Your task to perform on an android device: Go to Maps Image 0: 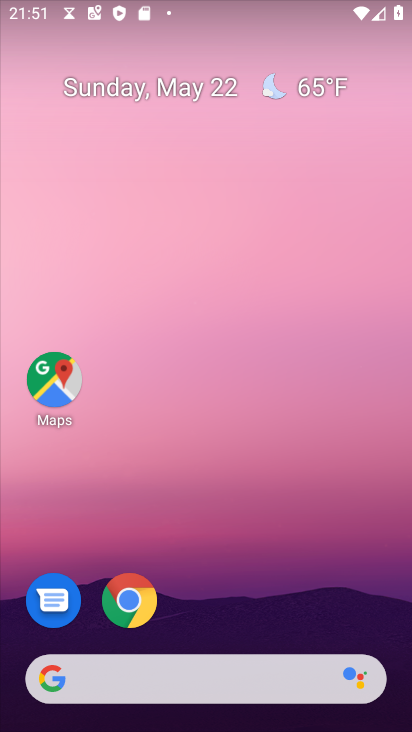
Step 0: click (66, 385)
Your task to perform on an android device: Go to Maps Image 1: 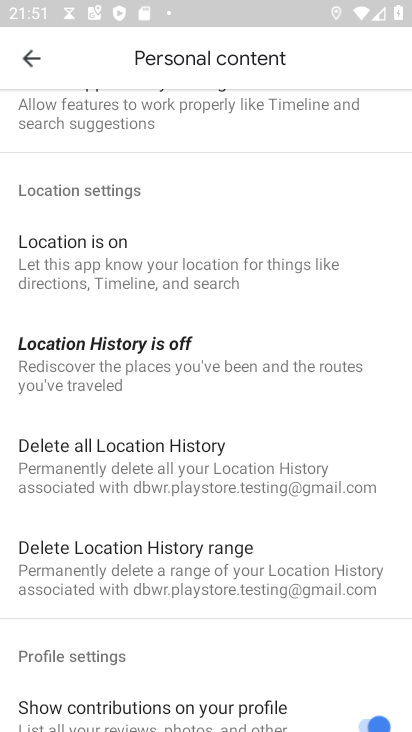
Step 1: task complete